Your task to perform on an android device: open app "ZOOM Cloud Meetings" Image 0: 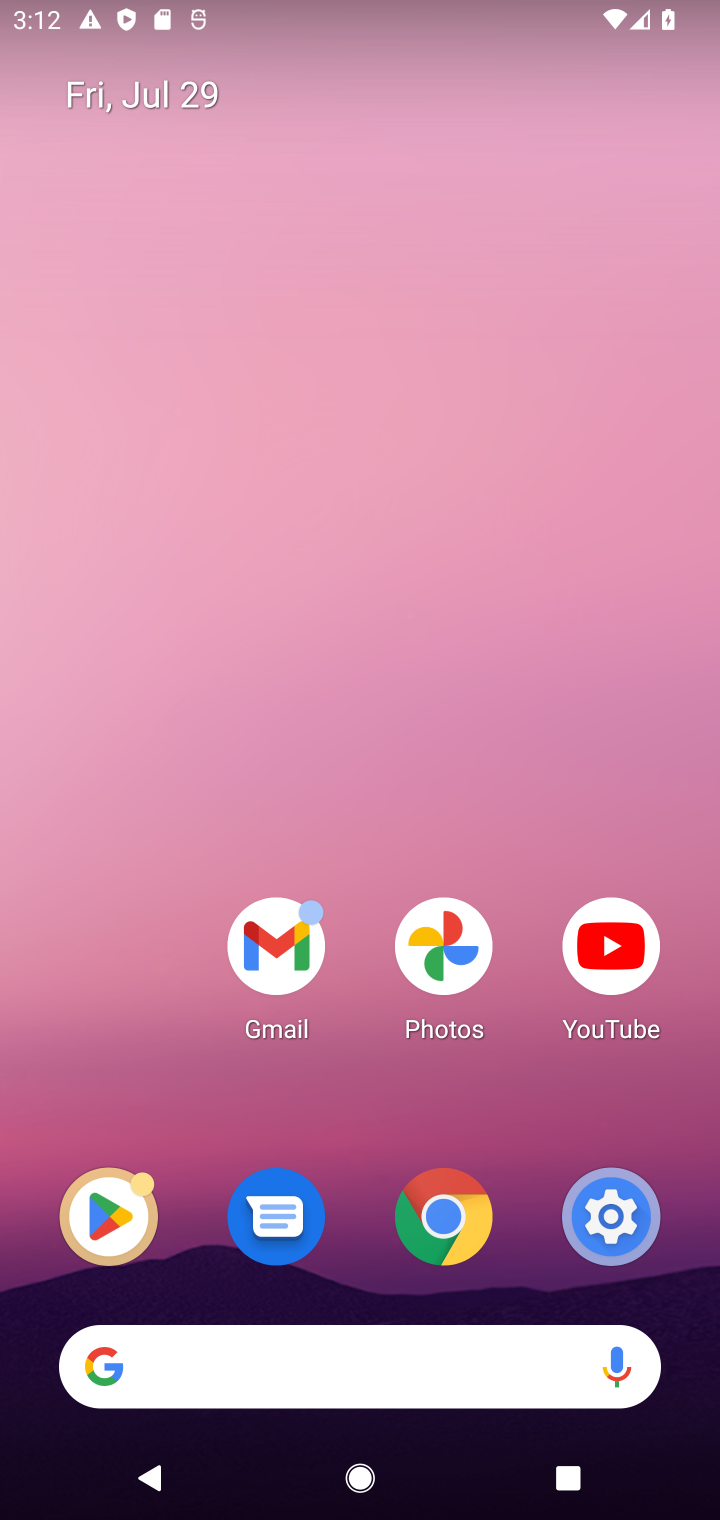
Step 0: drag from (484, 1332) to (448, 275)
Your task to perform on an android device: open app "ZOOM Cloud Meetings" Image 1: 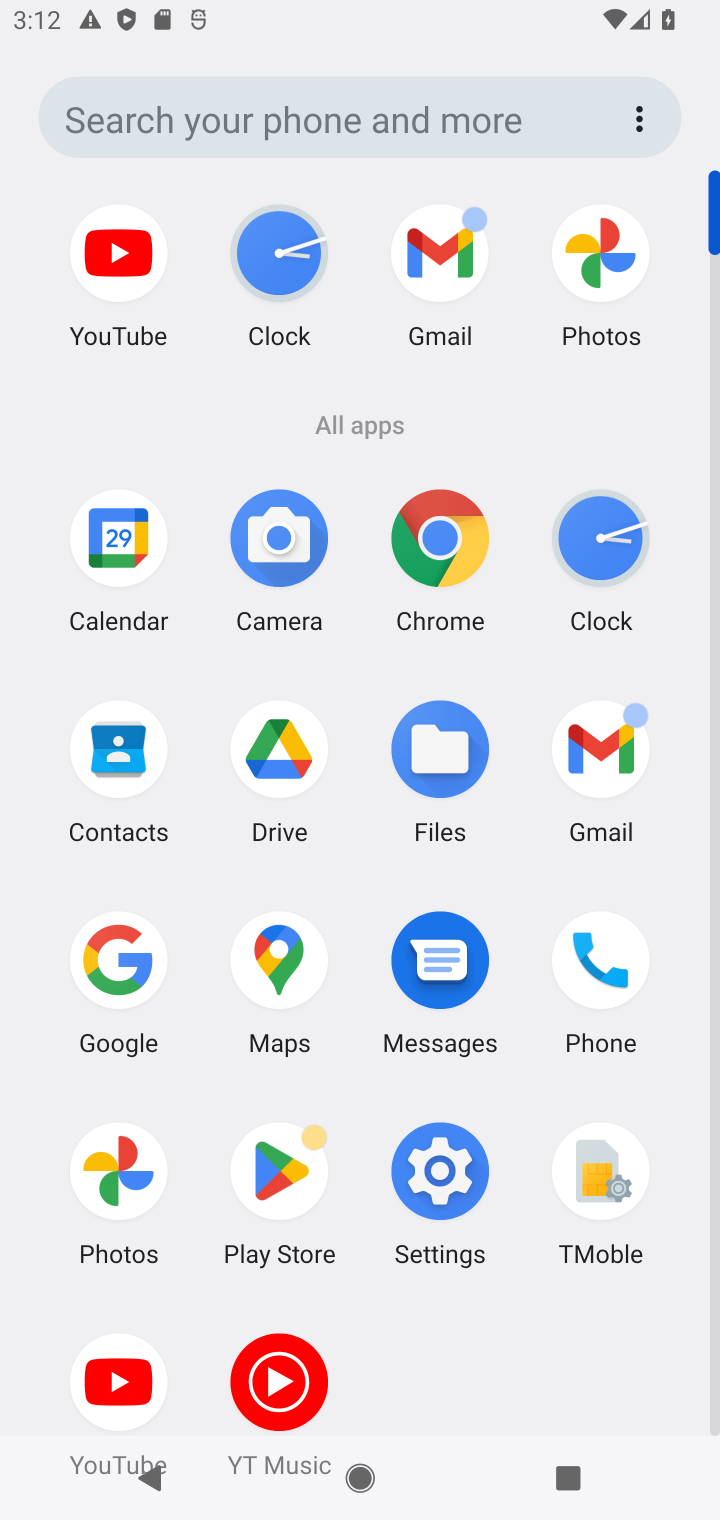
Step 1: click (311, 1182)
Your task to perform on an android device: open app "ZOOM Cloud Meetings" Image 2: 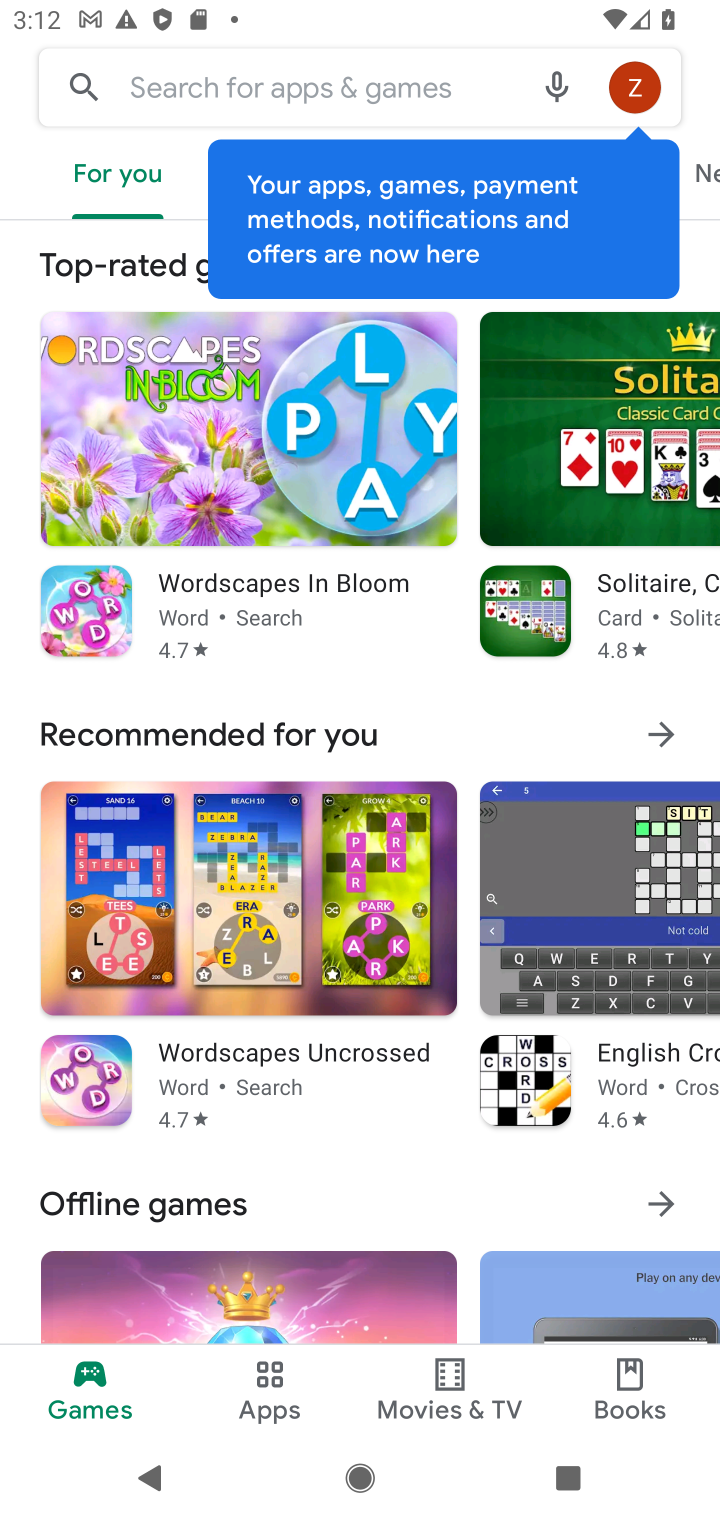
Step 2: click (414, 88)
Your task to perform on an android device: open app "ZOOM Cloud Meetings" Image 3: 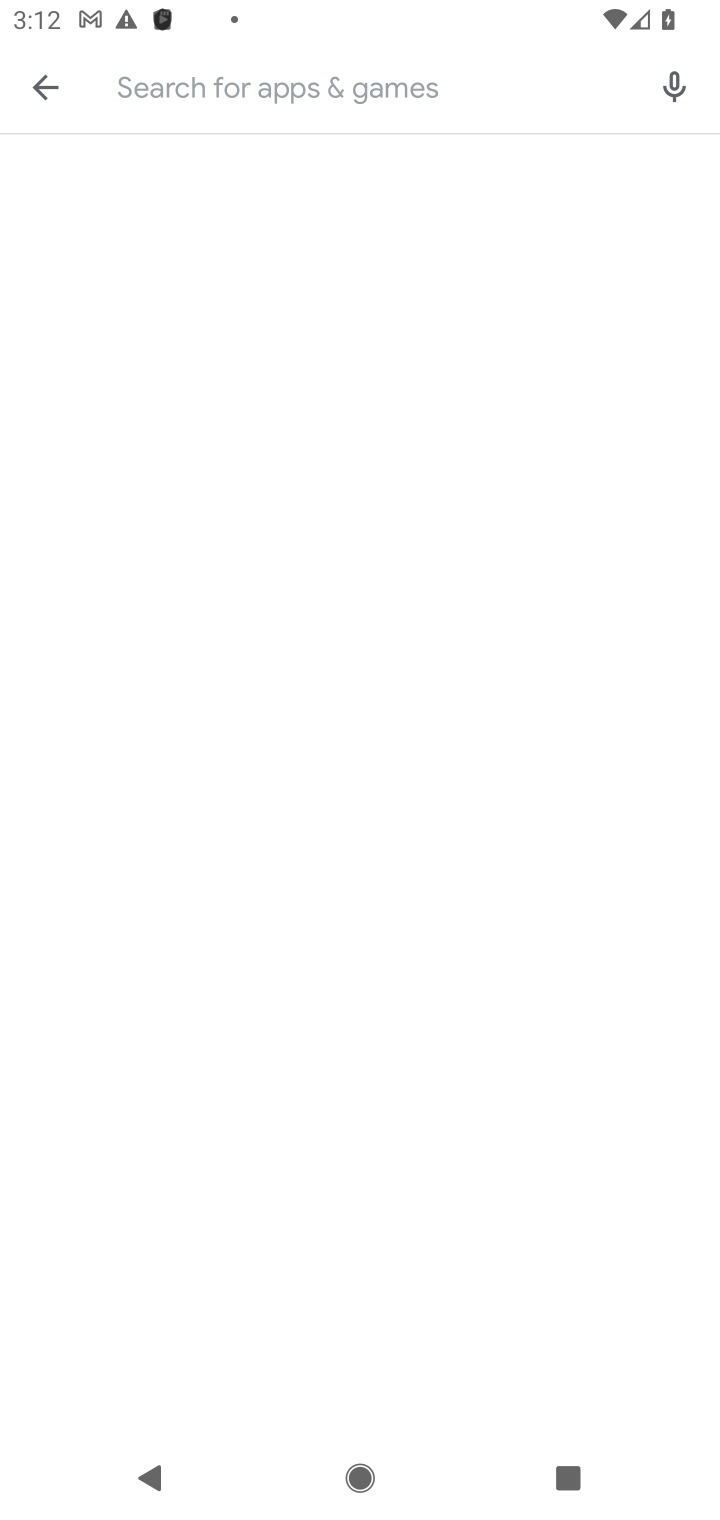
Step 3: click (314, 91)
Your task to perform on an android device: open app "ZOOM Cloud Meetings" Image 4: 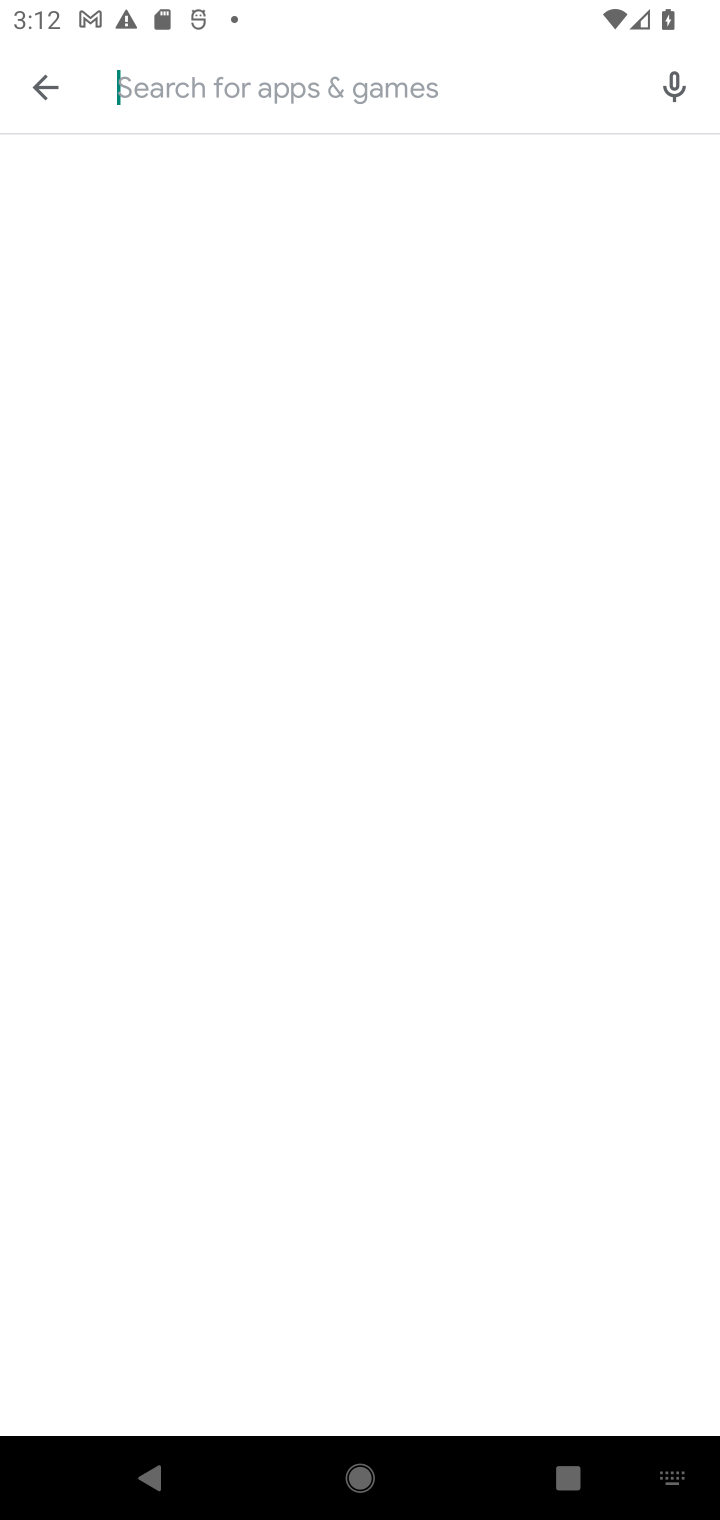
Step 4: type "zoom"
Your task to perform on an android device: open app "ZOOM Cloud Meetings" Image 5: 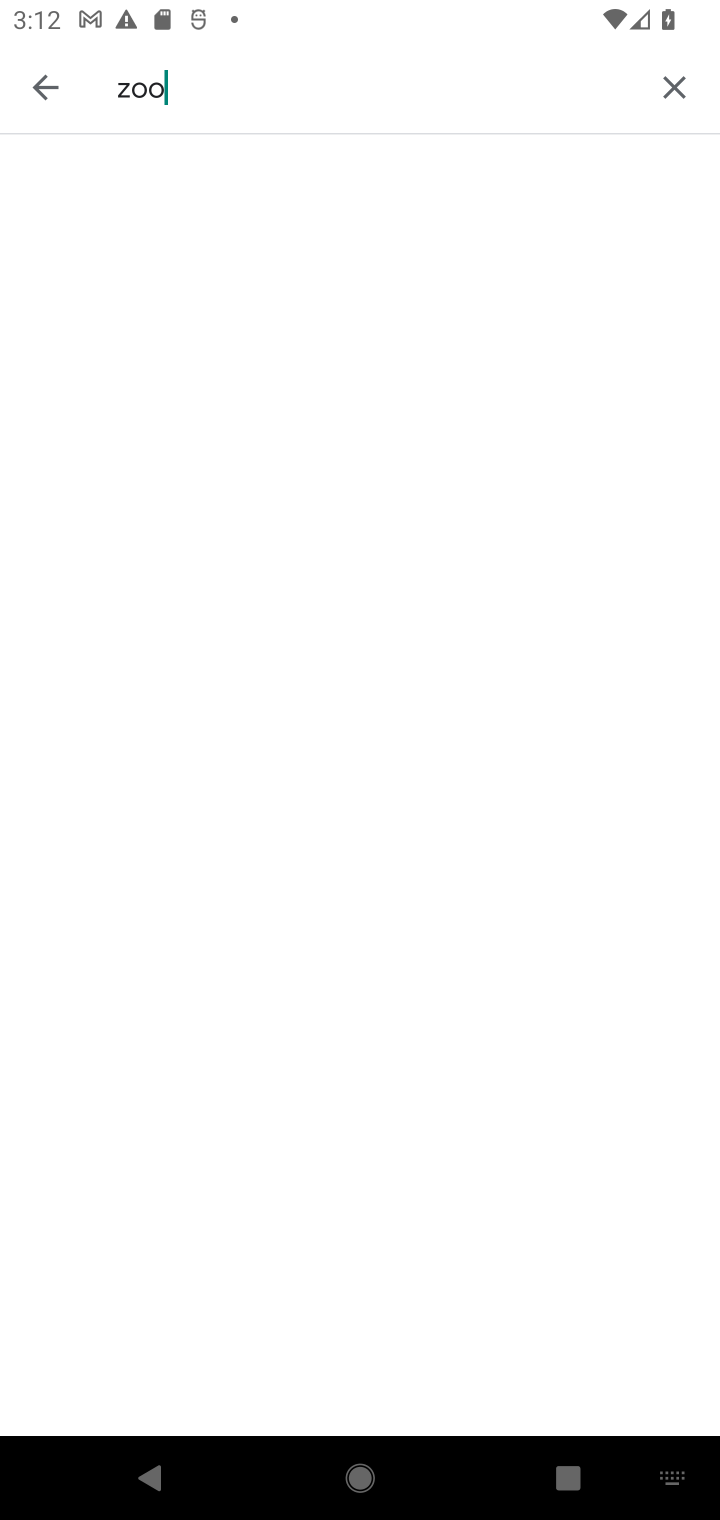
Step 5: type ""
Your task to perform on an android device: open app "ZOOM Cloud Meetings" Image 6: 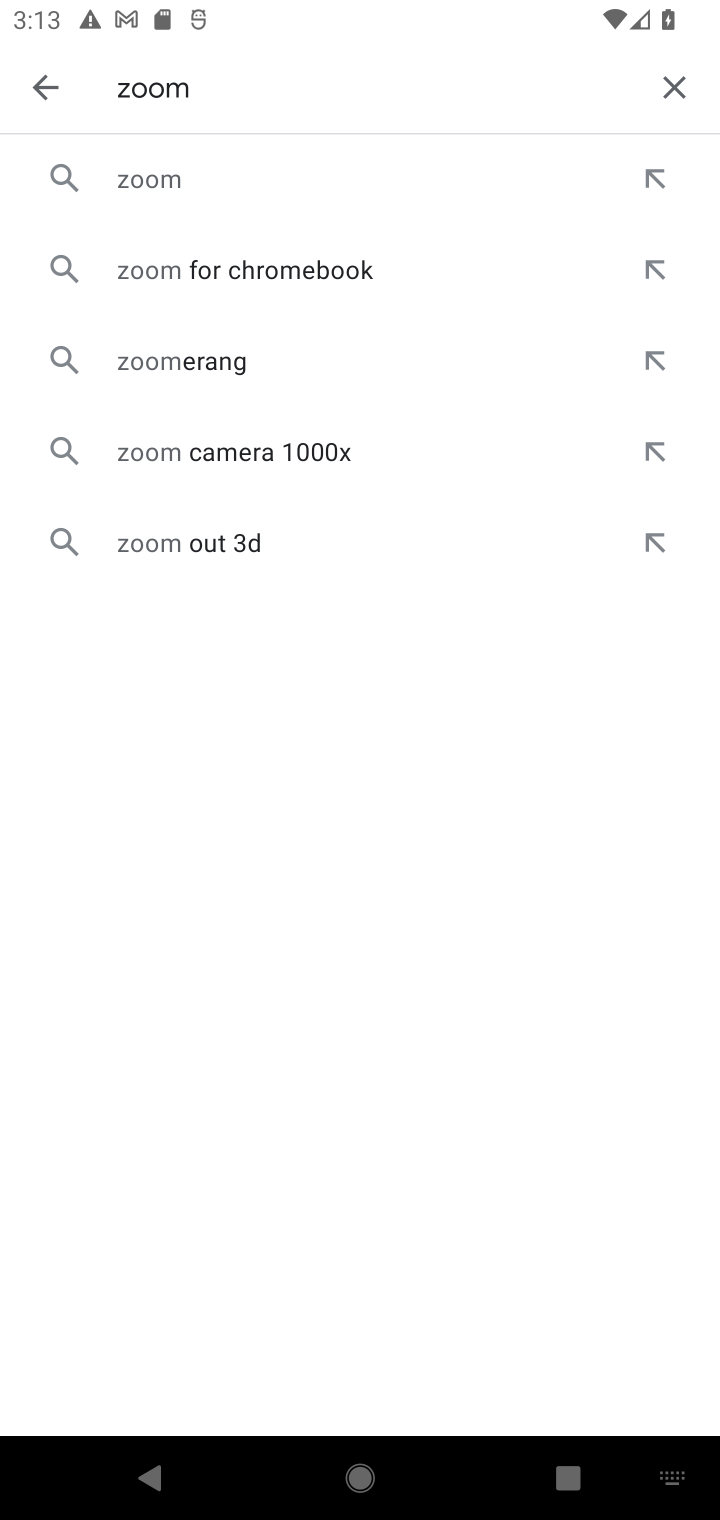
Step 6: click (300, 183)
Your task to perform on an android device: open app "ZOOM Cloud Meetings" Image 7: 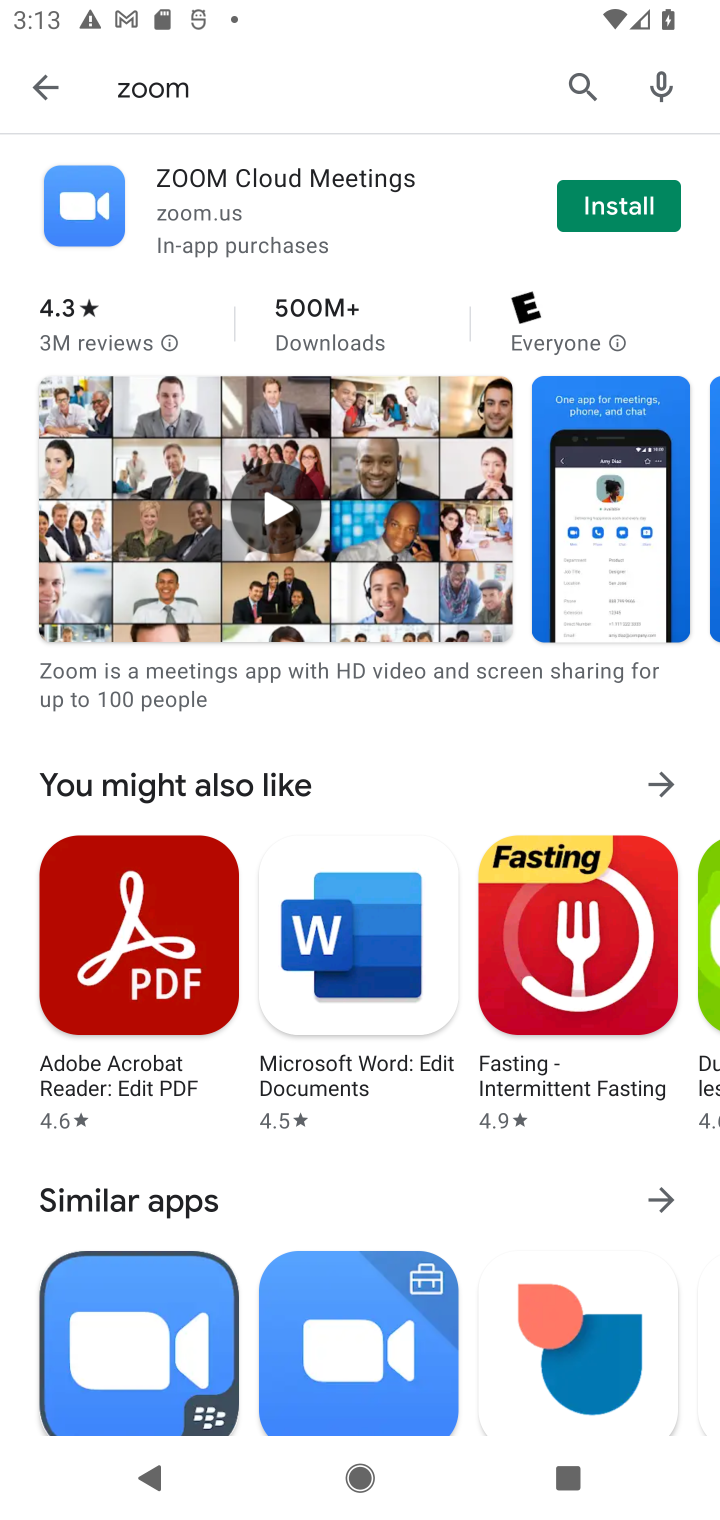
Step 7: task complete